Your task to perform on an android device: Open Yahoo.com Image 0: 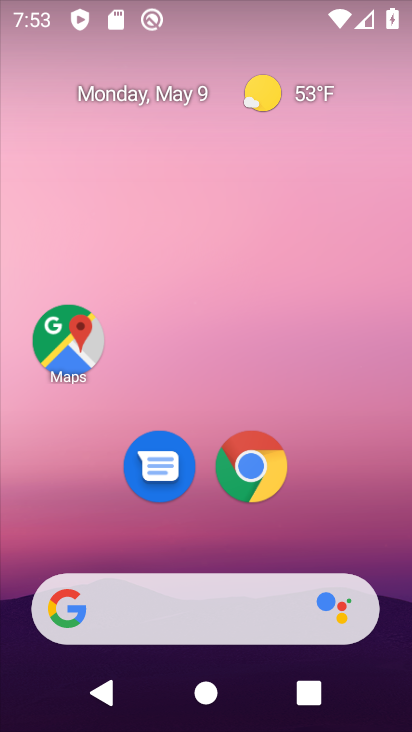
Step 0: click (252, 464)
Your task to perform on an android device: Open Yahoo.com Image 1: 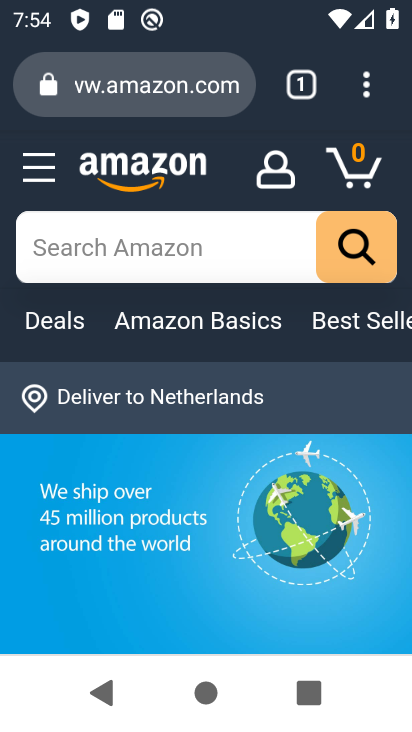
Step 1: click (166, 84)
Your task to perform on an android device: Open Yahoo.com Image 2: 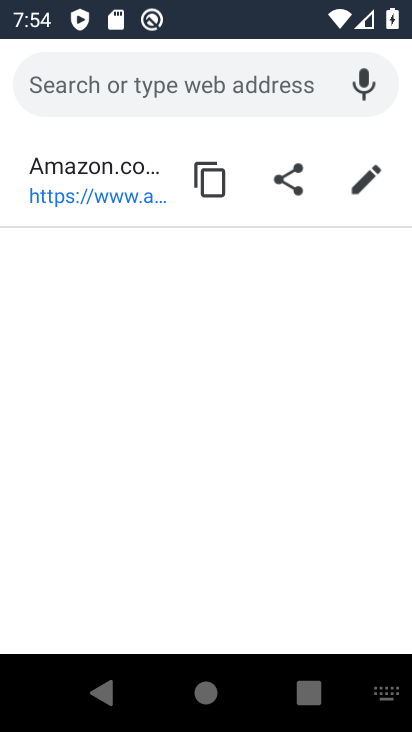
Step 2: type "Yahoo.com"
Your task to perform on an android device: Open Yahoo.com Image 3: 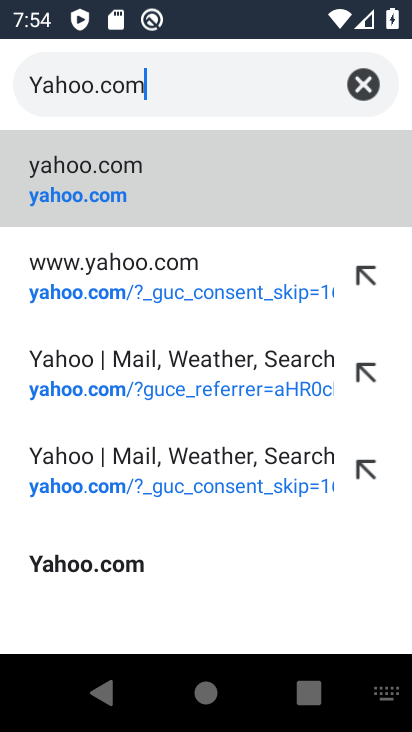
Step 3: type ""
Your task to perform on an android device: Open Yahoo.com Image 4: 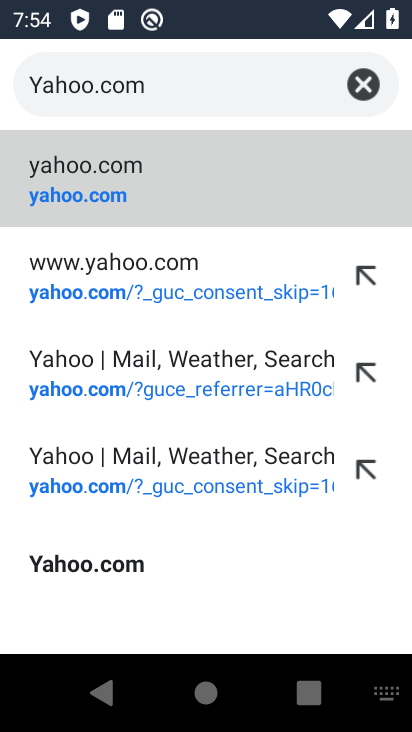
Step 4: click (64, 560)
Your task to perform on an android device: Open Yahoo.com Image 5: 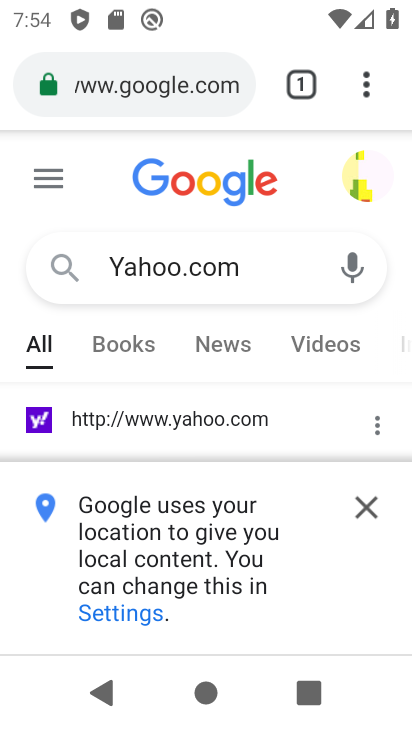
Step 5: click (365, 507)
Your task to perform on an android device: Open Yahoo.com Image 6: 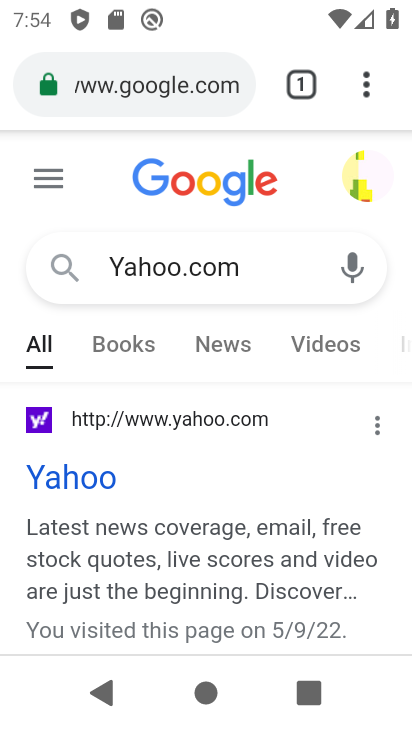
Step 6: click (88, 470)
Your task to perform on an android device: Open Yahoo.com Image 7: 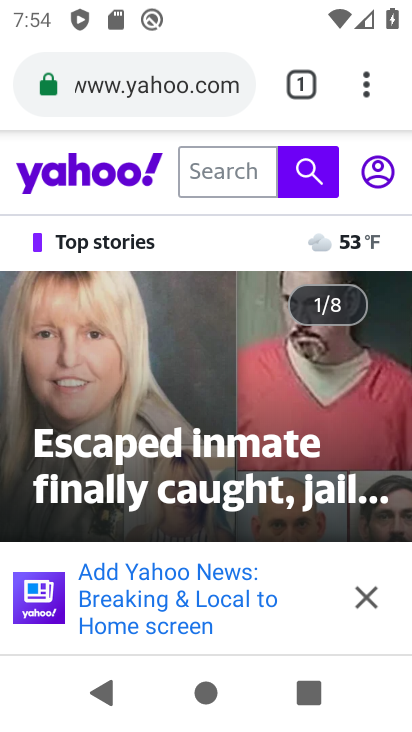
Step 7: task complete